Your task to perform on an android device: turn pop-ups on in chrome Image 0: 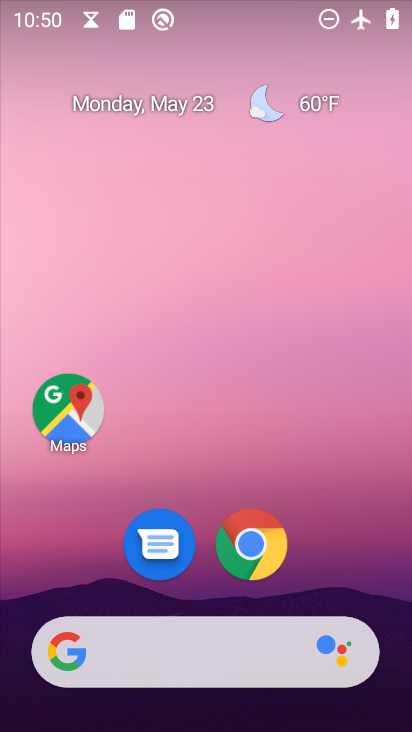
Step 0: click (272, 533)
Your task to perform on an android device: turn pop-ups on in chrome Image 1: 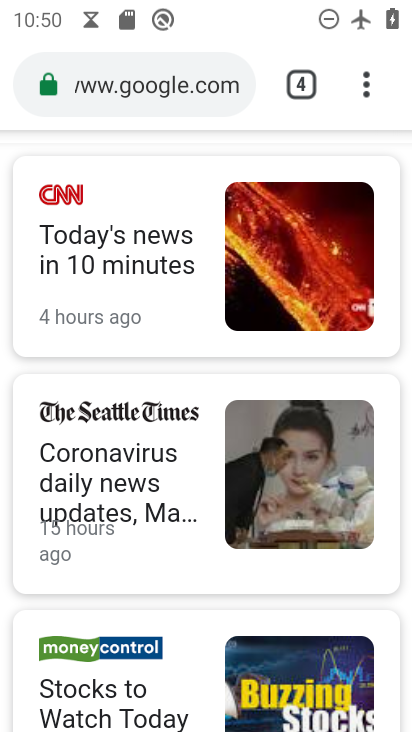
Step 1: click (363, 82)
Your task to perform on an android device: turn pop-ups on in chrome Image 2: 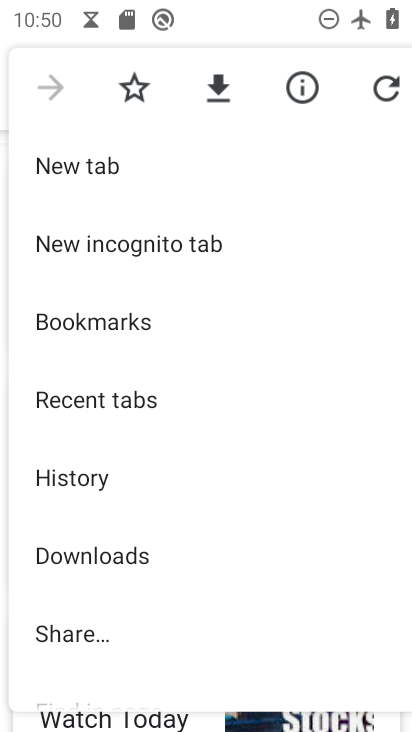
Step 2: drag from (172, 638) to (173, 251)
Your task to perform on an android device: turn pop-ups on in chrome Image 3: 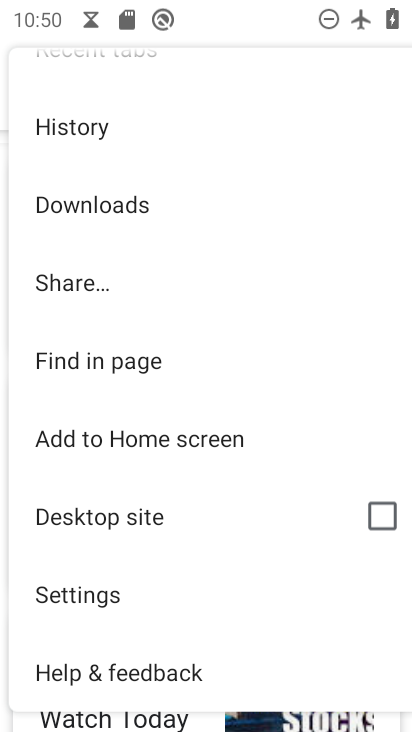
Step 3: click (97, 593)
Your task to perform on an android device: turn pop-ups on in chrome Image 4: 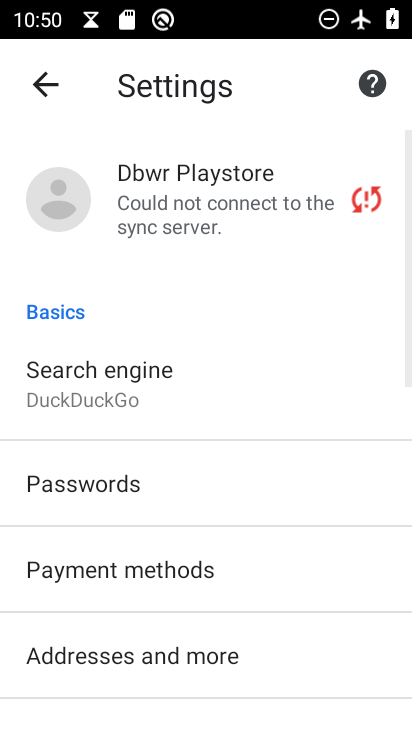
Step 4: drag from (150, 675) to (136, 341)
Your task to perform on an android device: turn pop-ups on in chrome Image 5: 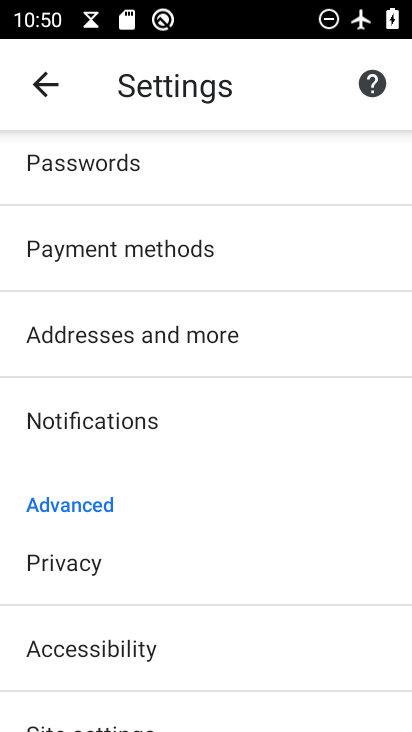
Step 5: click (120, 722)
Your task to perform on an android device: turn pop-ups on in chrome Image 6: 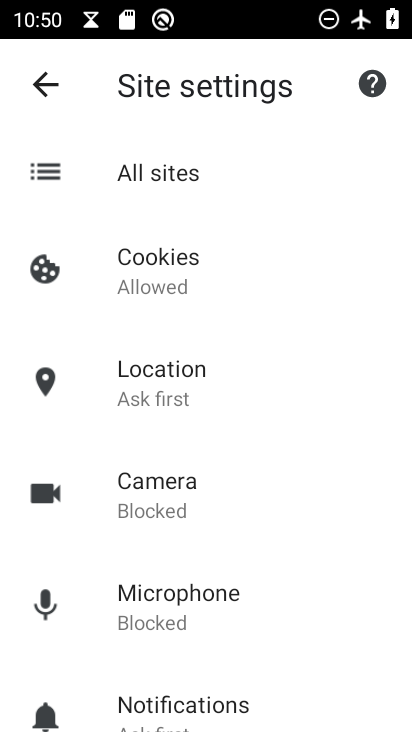
Step 6: drag from (232, 665) to (230, 309)
Your task to perform on an android device: turn pop-ups on in chrome Image 7: 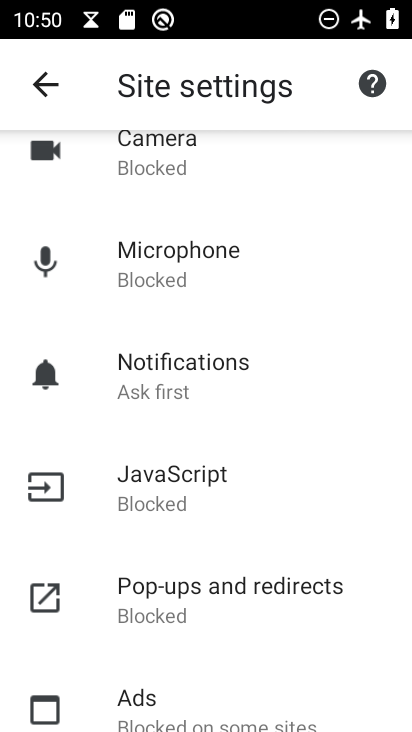
Step 7: click (171, 615)
Your task to perform on an android device: turn pop-ups on in chrome Image 8: 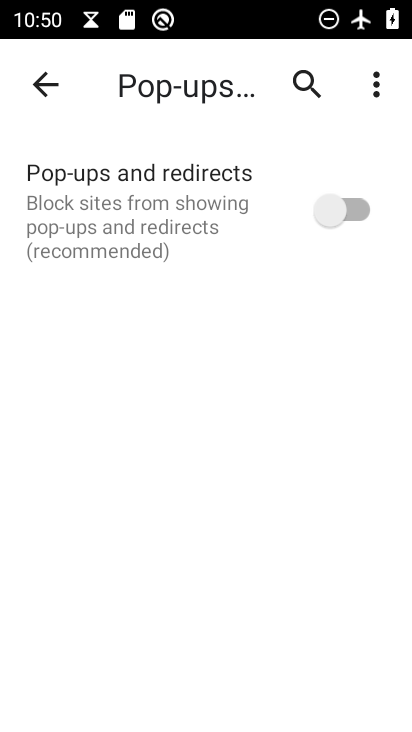
Step 8: click (339, 218)
Your task to perform on an android device: turn pop-ups on in chrome Image 9: 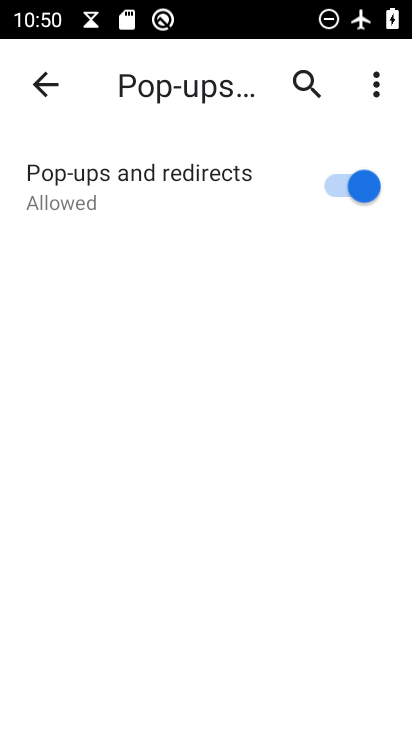
Step 9: task complete